Your task to perform on an android device: Open the phone app and click the voicemail tab. Image 0: 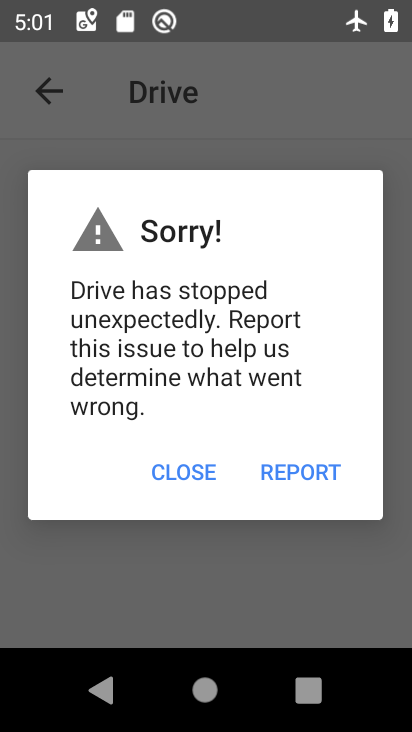
Step 0: press home button
Your task to perform on an android device: Open the phone app and click the voicemail tab. Image 1: 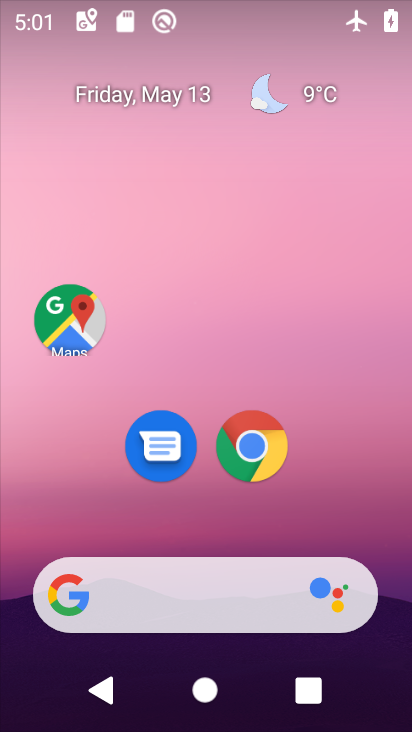
Step 1: drag from (256, 499) to (322, 11)
Your task to perform on an android device: Open the phone app and click the voicemail tab. Image 2: 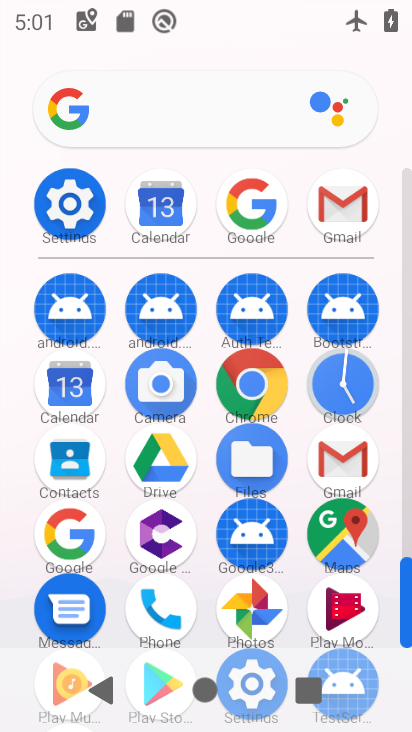
Step 2: click (179, 597)
Your task to perform on an android device: Open the phone app and click the voicemail tab. Image 3: 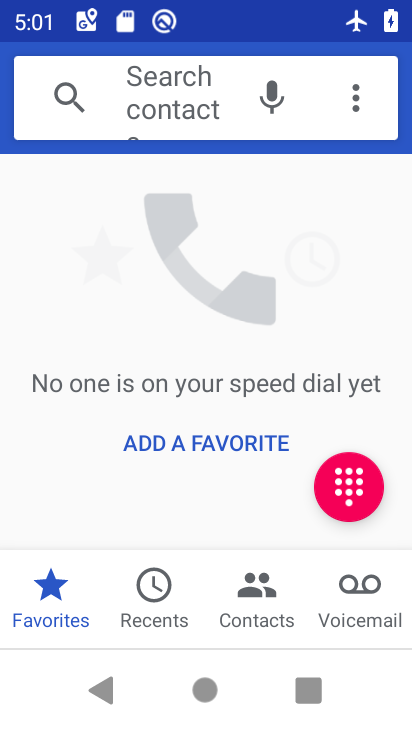
Step 3: click (335, 608)
Your task to perform on an android device: Open the phone app and click the voicemail tab. Image 4: 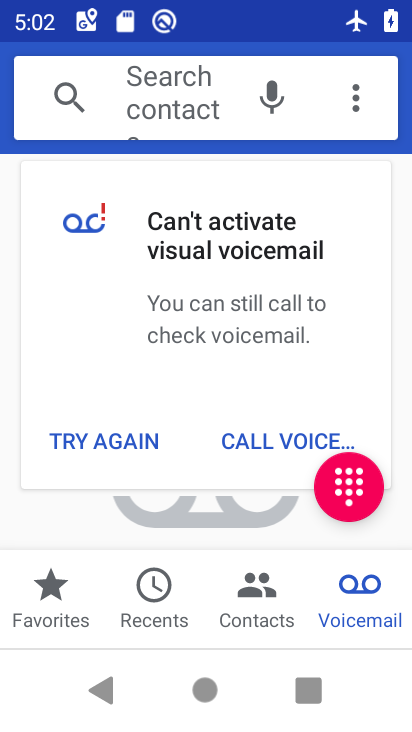
Step 4: task complete